Your task to perform on an android device: Search for "razer blade" on bestbuy.com, select the first entry, and add it to the cart. Image 0: 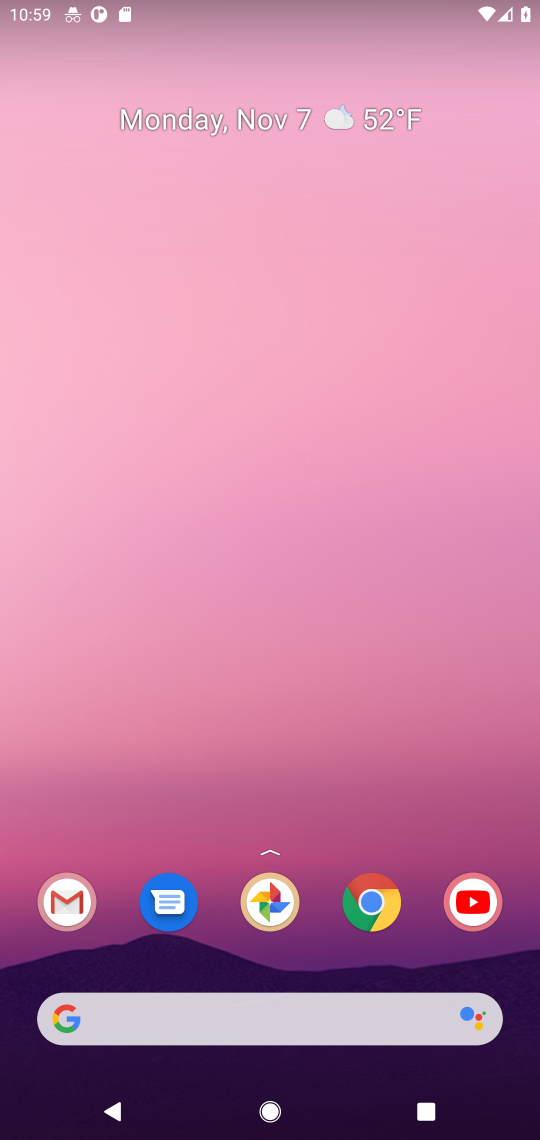
Step 0: click (374, 915)
Your task to perform on an android device: Search for "razer blade" on bestbuy.com, select the first entry, and add it to the cart. Image 1: 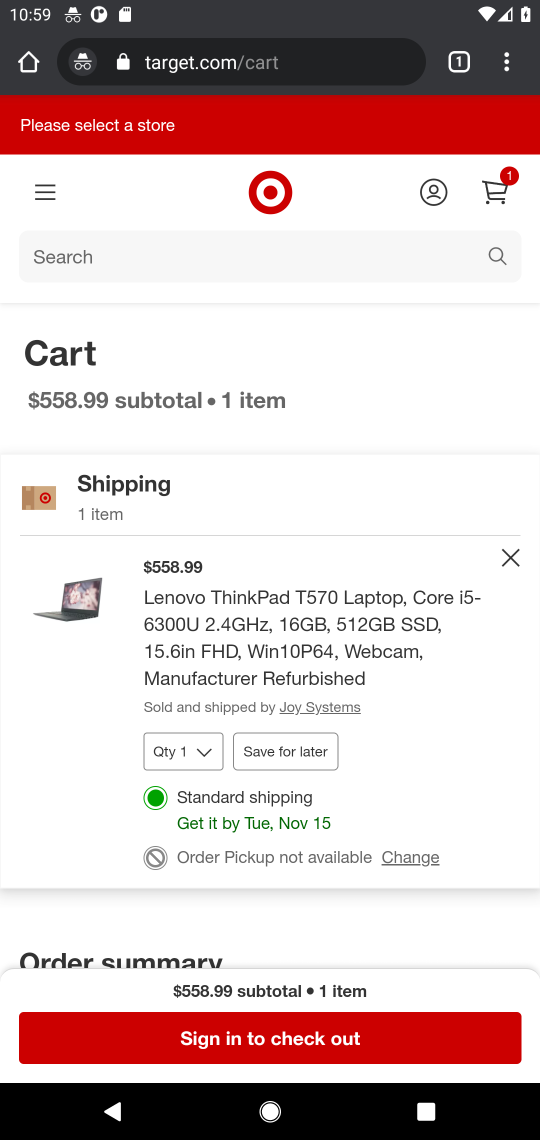
Step 1: click (246, 68)
Your task to perform on an android device: Search for "razer blade" on bestbuy.com, select the first entry, and add it to the cart. Image 2: 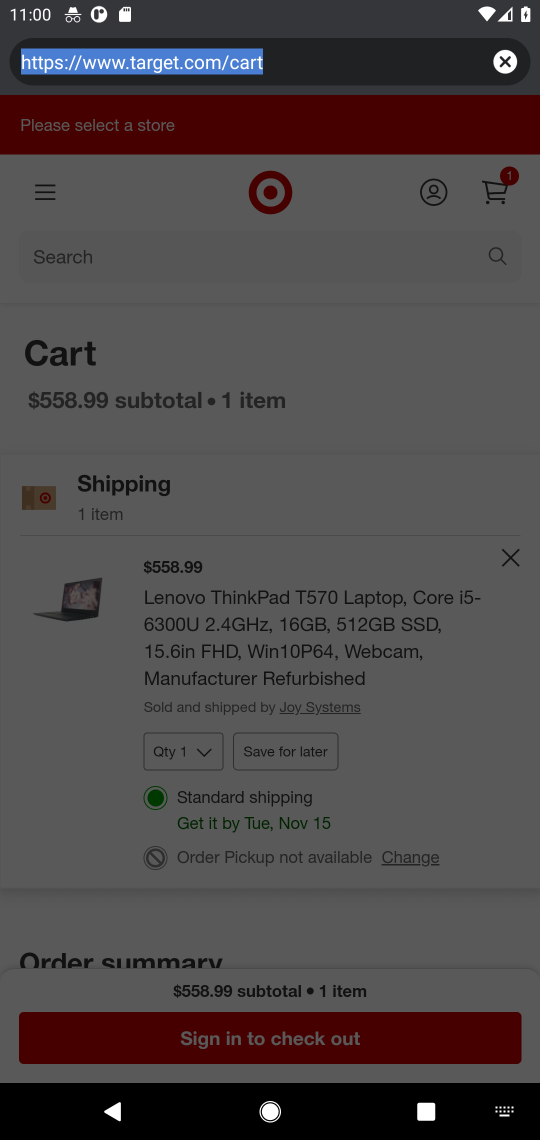
Step 2: type "bestbuy.com"
Your task to perform on an android device: Search for "razer blade" on bestbuy.com, select the first entry, and add it to the cart. Image 3: 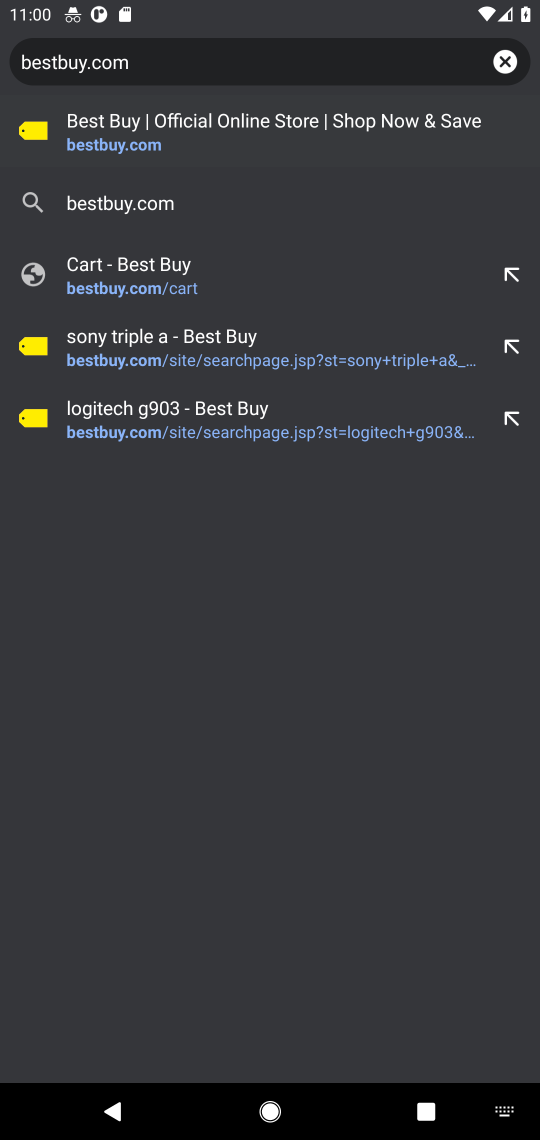
Step 3: click (102, 131)
Your task to perform on an android device: Search for "razer blade" on bestbuy.com, select the first entry, and add it to the cart. Image 4: 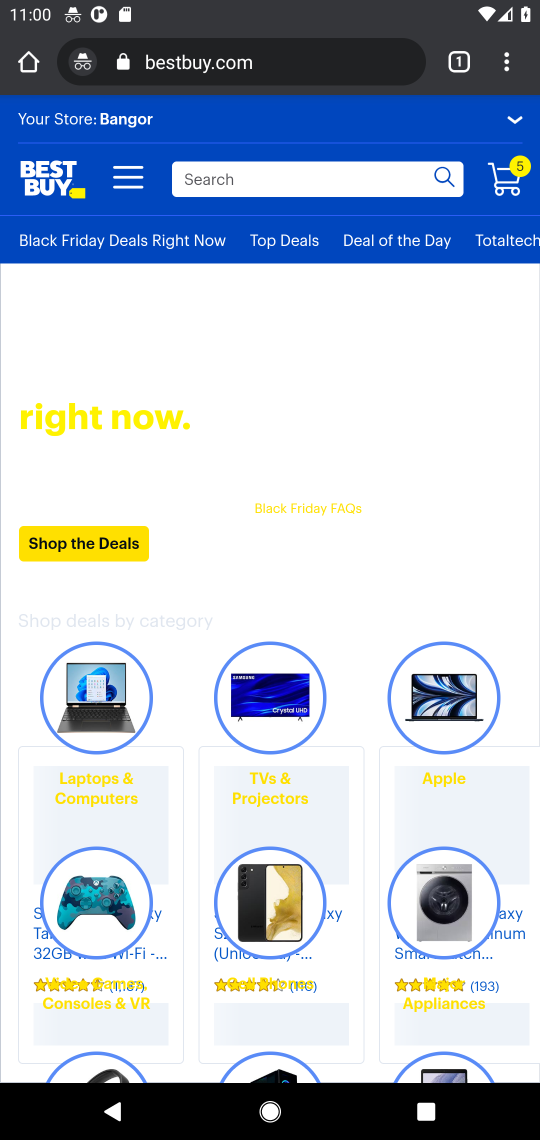
Step 4: click (218, 181)
Your task to perform on an android device: Search for "razer blade" on bestbuy.com, select the first entry, and add it to the cart. Image 5: 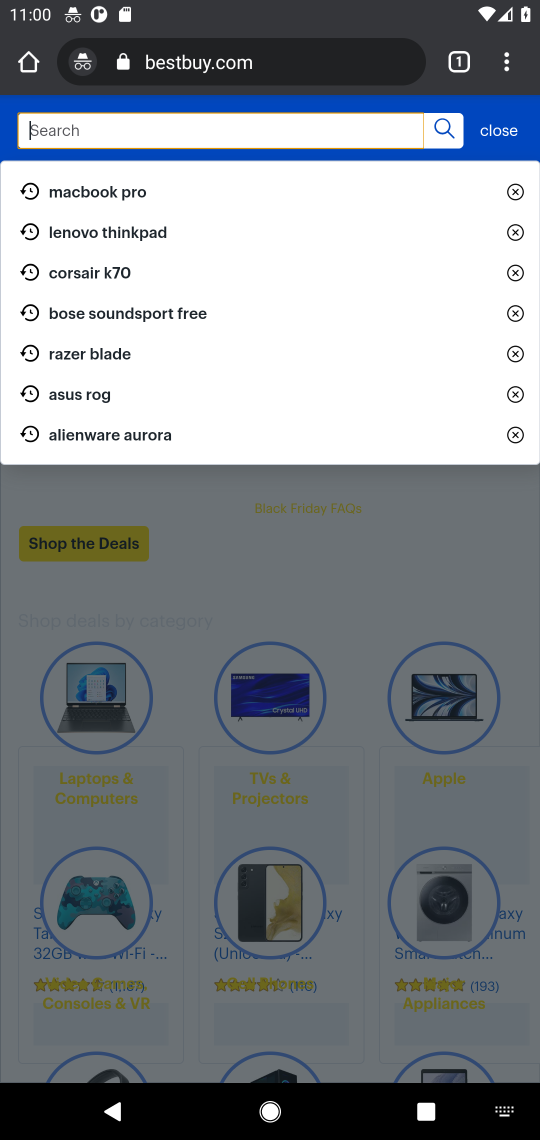
Step 5: type "razer blade"
Your task to perform on an android device: Search for "razer blade" on bestbuy.com, select the first entry, and add it to the cart. Image 6: 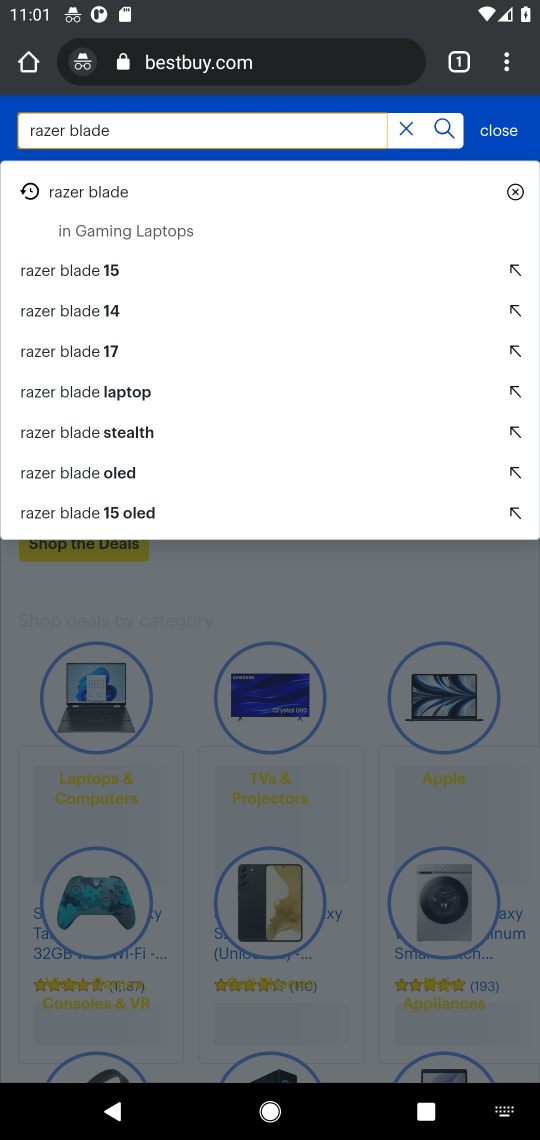
Step 6: click (98, 197)
Your task to perform on an android device: Search for "razer blade" on bestbuy.com, select the first entry, and add it to the cart. Image 7: 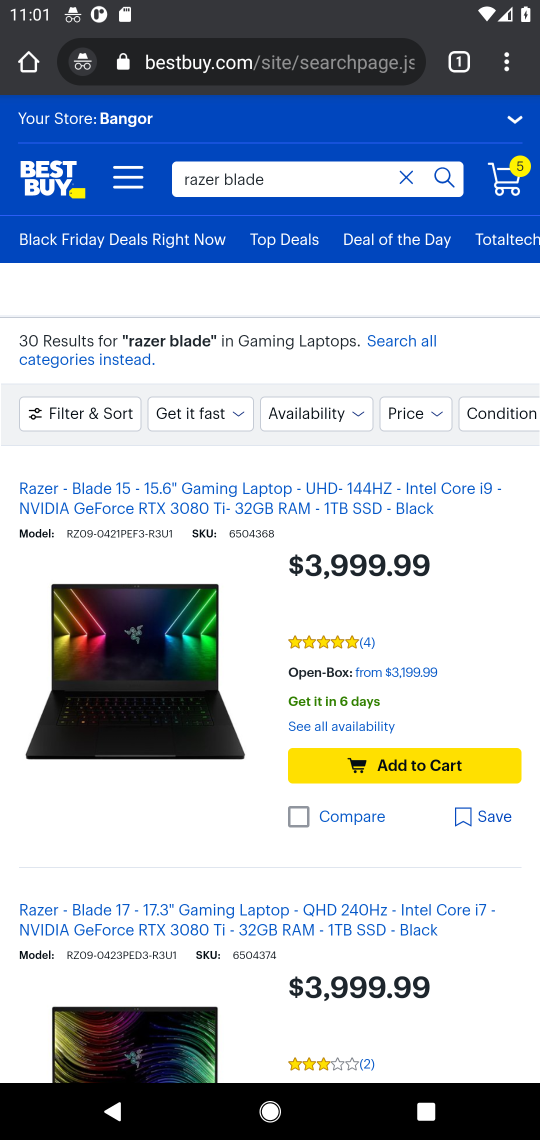
Step 7: click (413, 732)
Your task to perform on an android device: Search for "razer blade" on bestbuy.com, select the first entry, and add it to the cart. Image 8: 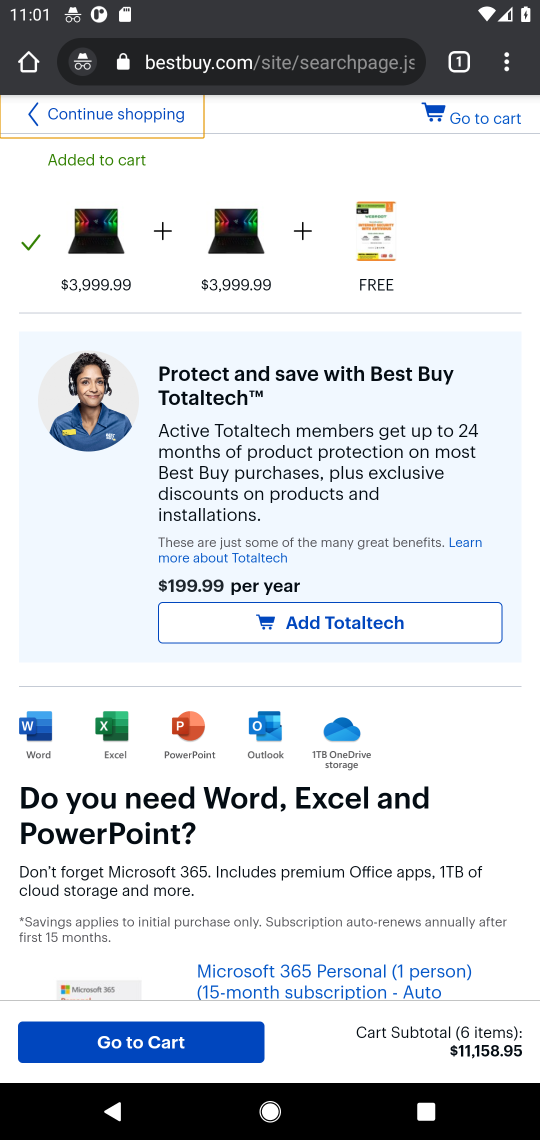
Step 8: task complete